Your task to perform on an android device: Open the map Image 0: 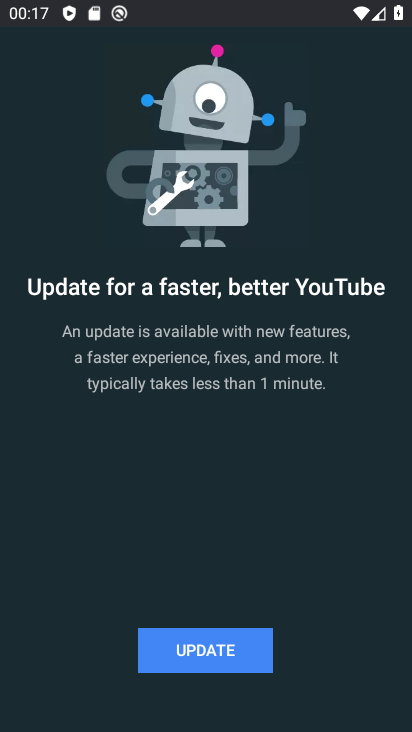
Step 0: press home button
Your task to perform on an android device: Open the map Image 1: 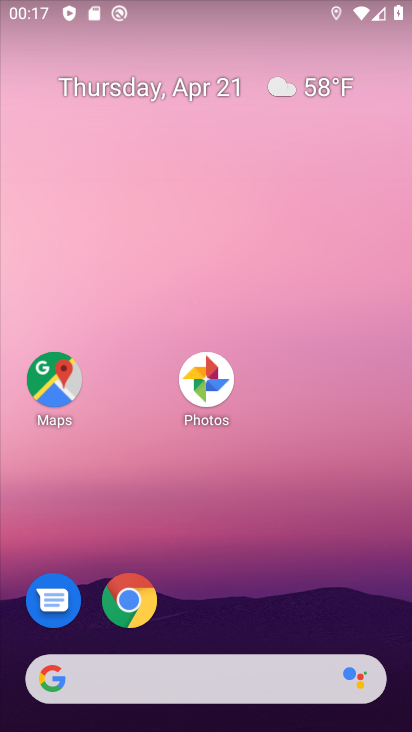
Step 1: drag from (209, 645) to (395, 539)
Your task to perform on an android device: Open the map Image 2: 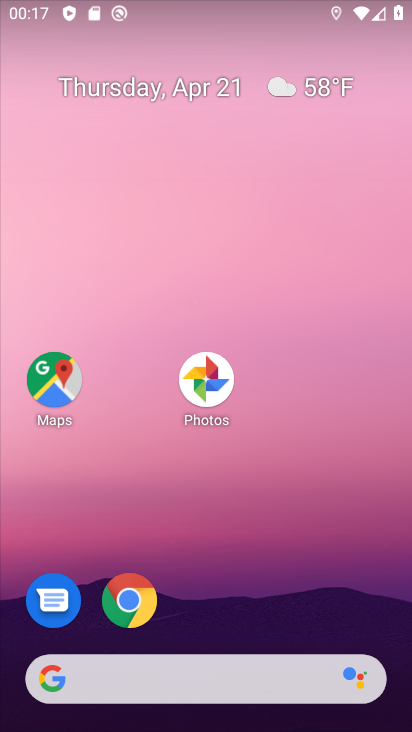
Step 2: click (49, 377)
Your task to perform on an android device: Open the map Image 3: 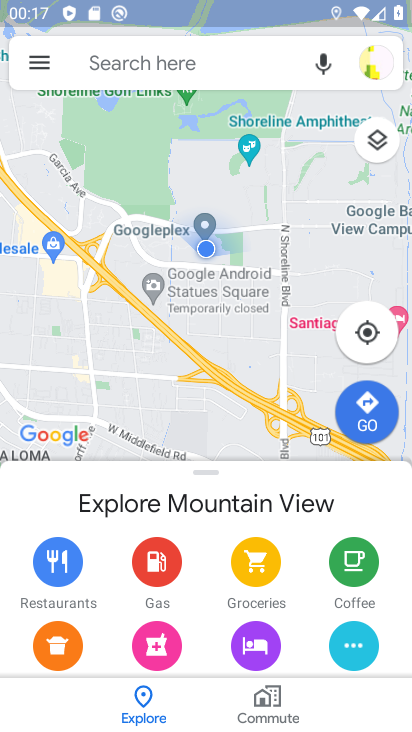
Step 3: task complete